Your task to perform on an android device: turn smart compose on in the gmail app Image 0: 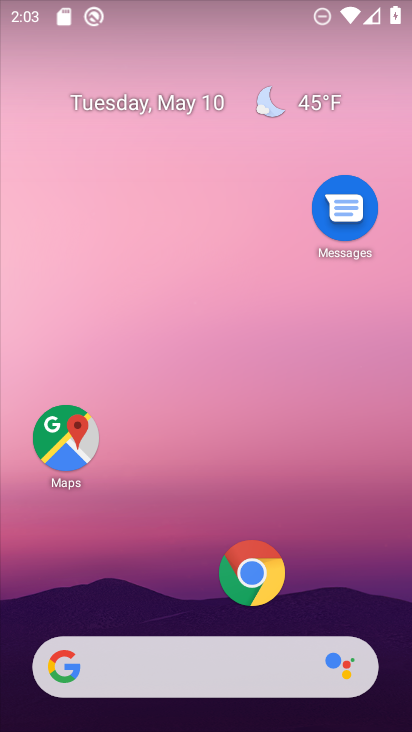
Step 0: drag from (205, 628) to (249, 352)
Your task to perform on an android device: turn smart compose on in the gmail app Image 1: 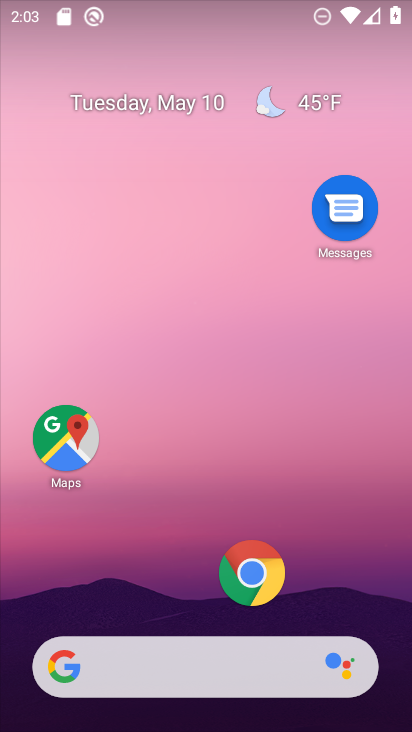
Step 1: drag from (196, 504) to (221, 324)
Your task to perform on an android device: turn smart compose on in the gmail app Image 2: 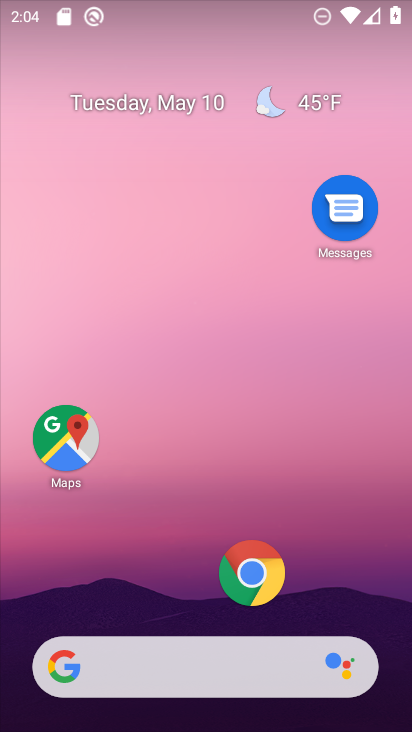
Step 2: drag from (193, 596) to (209, 203)
Your task to perform on an android device: turn smart compose on in the gmail app Image 3: 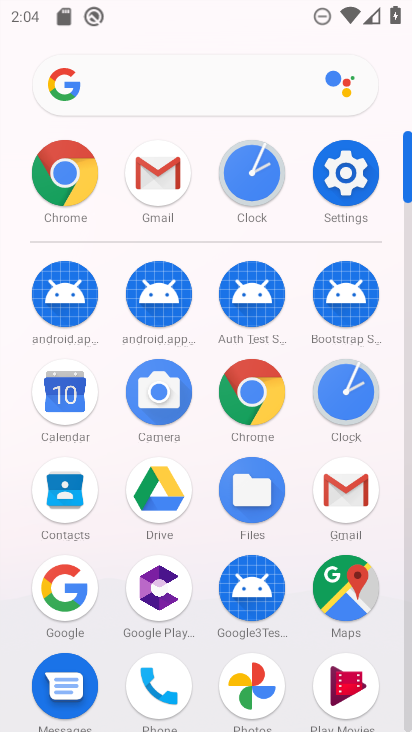
Step 3: click (333, 495)
Your task to perform on an android device: turn smart compose on in the gmail app Image 4: 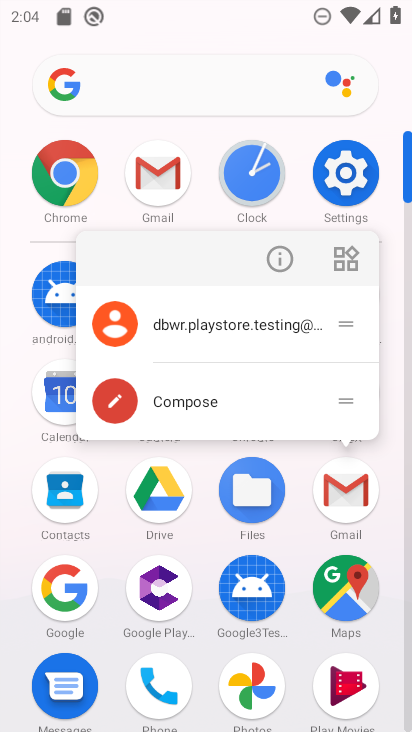
Step 4: click (283, 254)
Your task to perform on an android device: turn smart compose on in the gmail app Image 5: 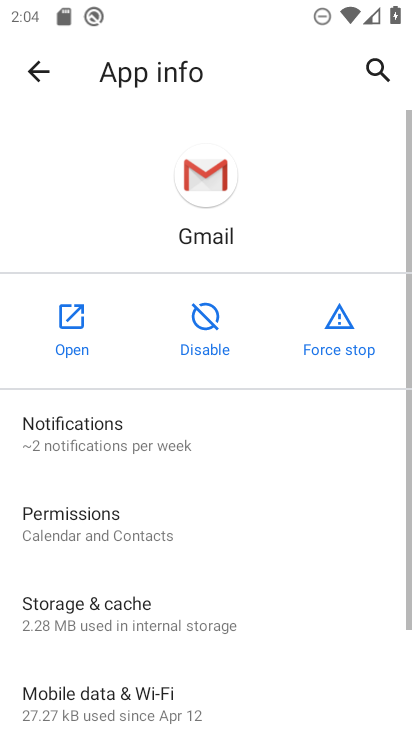
Step 5: click (92, 315)
Your task to perform on an android device: turn smart compose on in the gmail app Image 6: 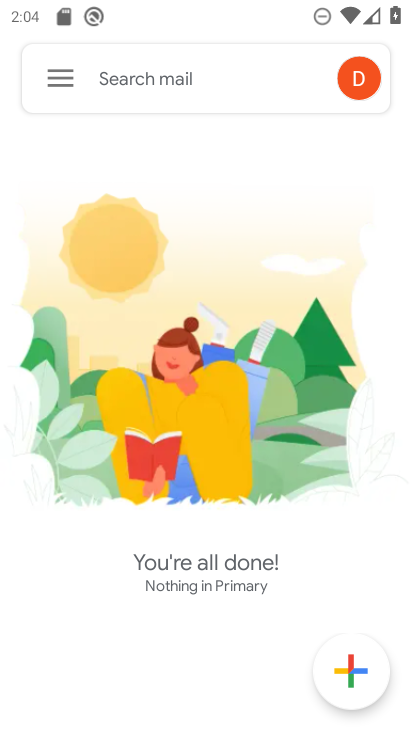
Step 6: click (47, 80)
Your task to perform on an android device: turn smart compose on in the gmail app Image 7: 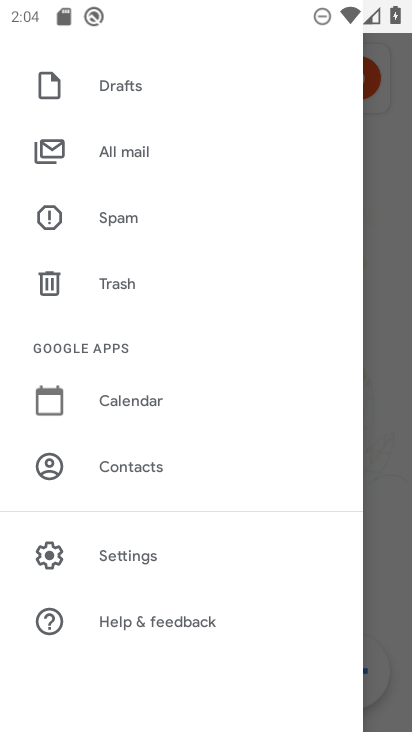
Step 7: click (143, 541)
Your task to perform on an android device: turn smart compose on in the gmail app Image 8: 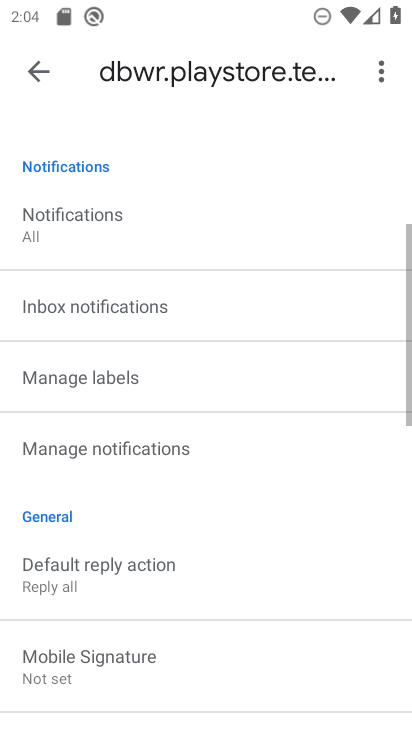
Step 8: task complete